Your task to perform on an android device: toggle airplane mode Image 0: 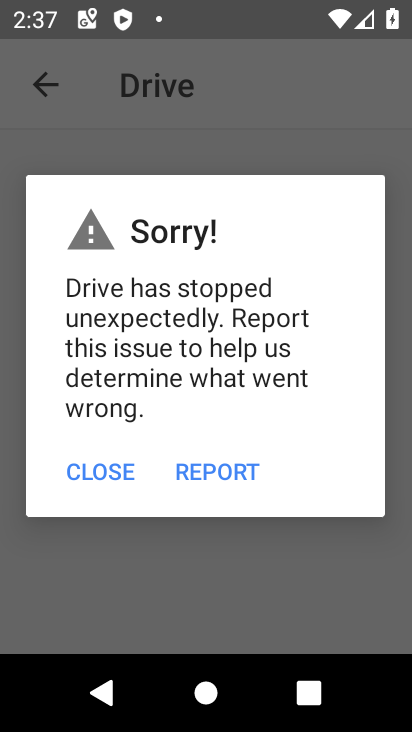
Step 0: press home button
Your task to perform on an android device: toggle airplane mode Image 1: 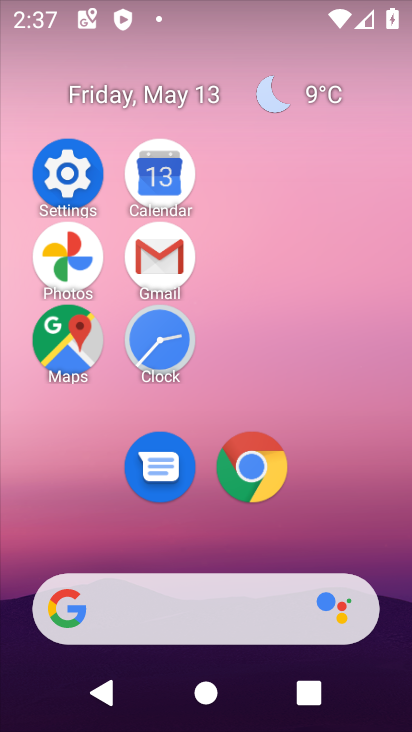
Step 1: click (90, 183)
Your task to perform on an android device: toggle airplane mode Image 2: 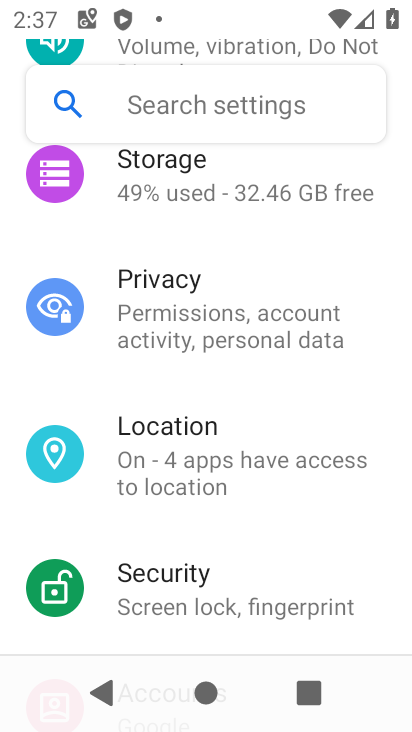
Step 2: drag from (273, 227) to (252, 579)
Your task to perform on an android device: toggle airplane mode Image 3: 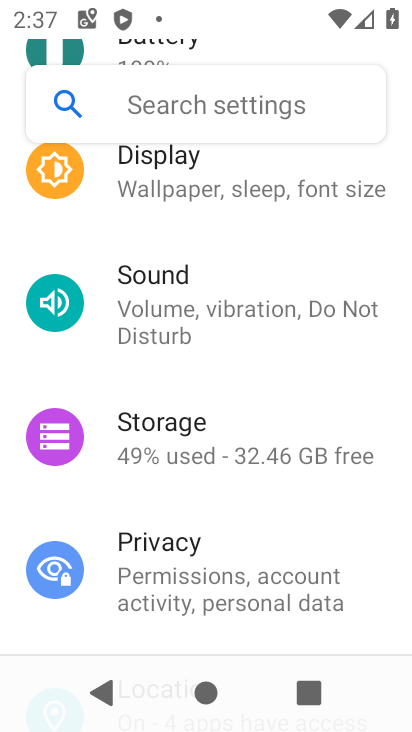
Step 3: drag from (268, 251) to (260, 582)
Your task to perform on an android device: toggle airplane mode Image 4: 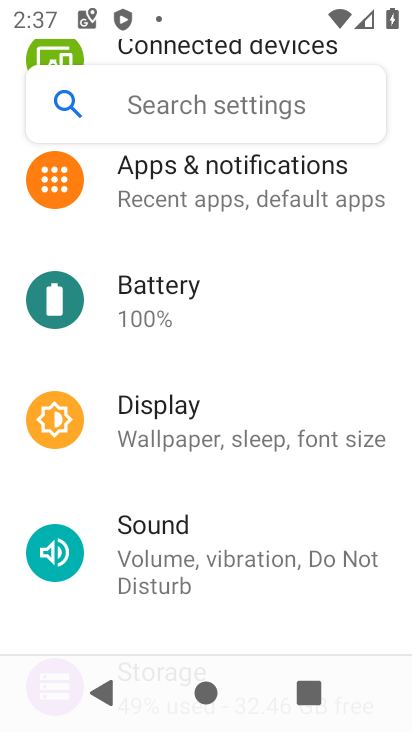
Step 4: drag from (264, 272) to (256, 601)
Your task to perform on an android device: toggle airplane mode Image 5: 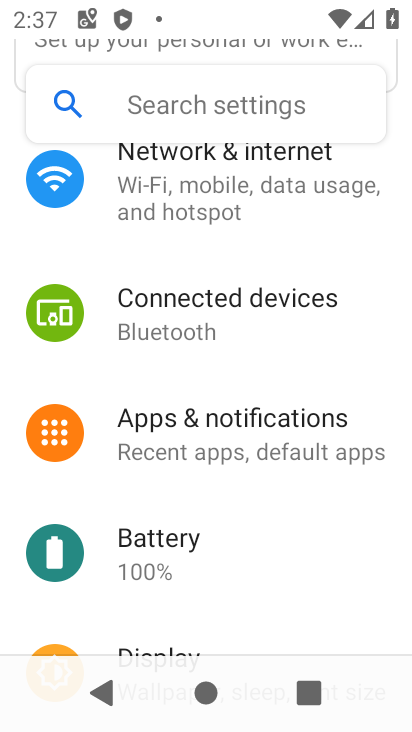
Step 5: click (286, 201)
Your task to perform on an android device: toggle airplane mode Image 6: 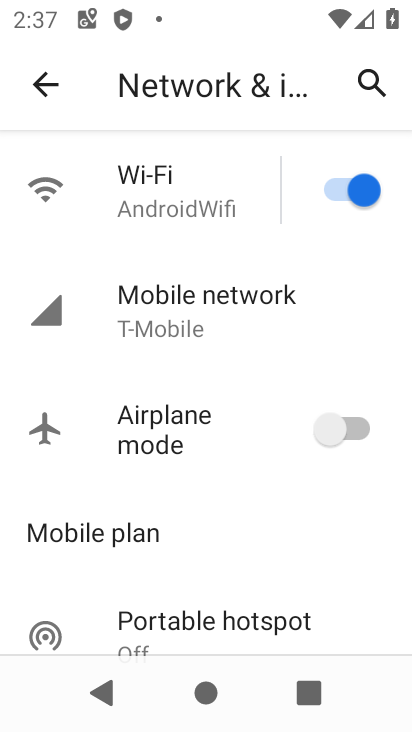
Step 6: click (338, 420)
Your task to perform on an android device: toggle airplane mode Image 7: 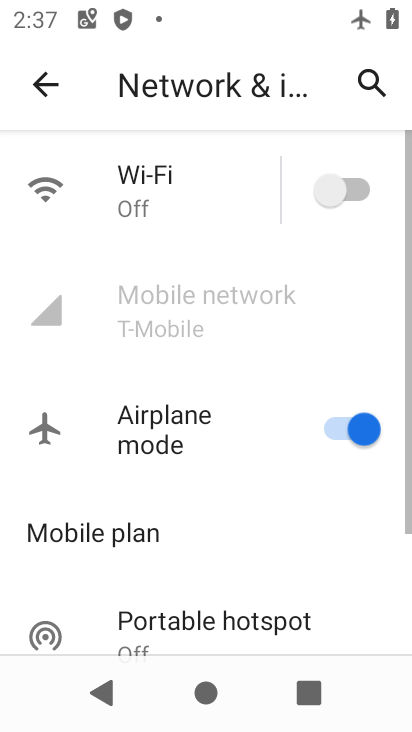
Step 7: task complete